Your task to perform on an android device: change the clock display to show seconds Image 0: 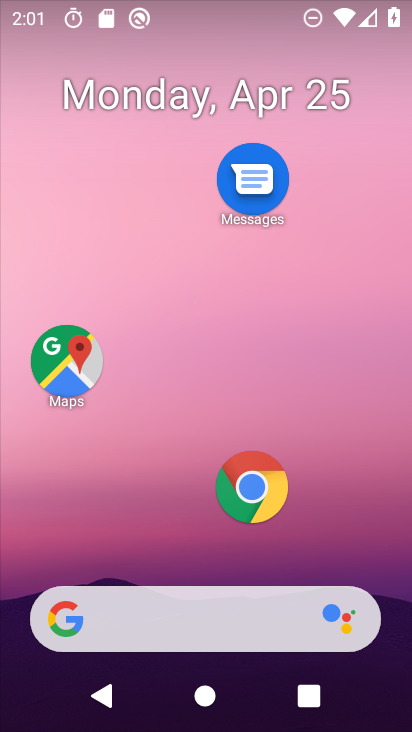
Step 0: drag from (332, 567) to (247, 1)
Your task to perform on an android device: change the clock display to show seconds Image 1: 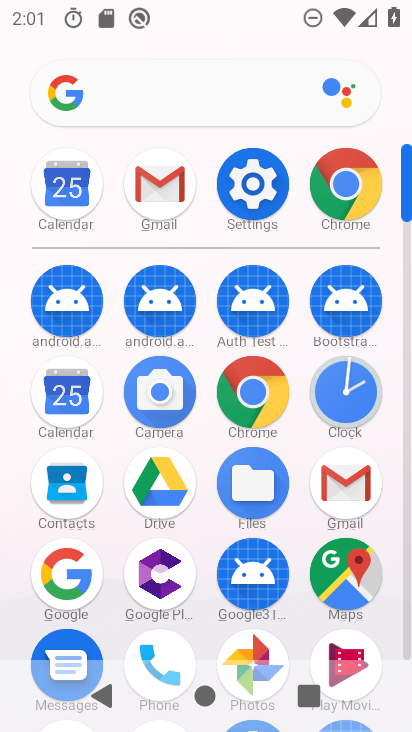
Step 1: click (337, 404)
Your task to perform on an android device: change the clock display to show seconds Image 2: 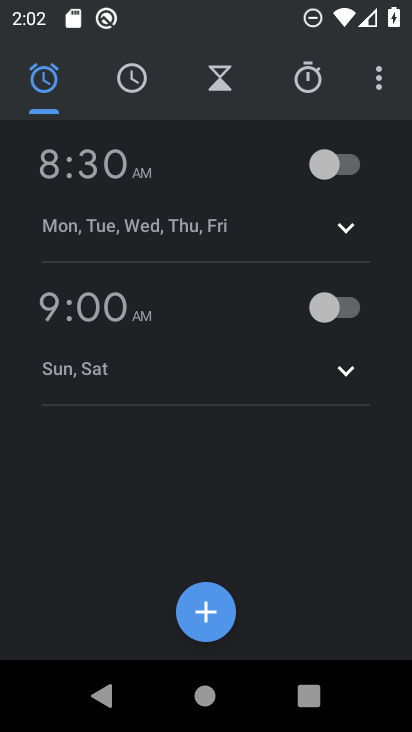
Step 2: click (378, 73)
Your task to perform on an android device: change the clock display to show seconds Image 3: 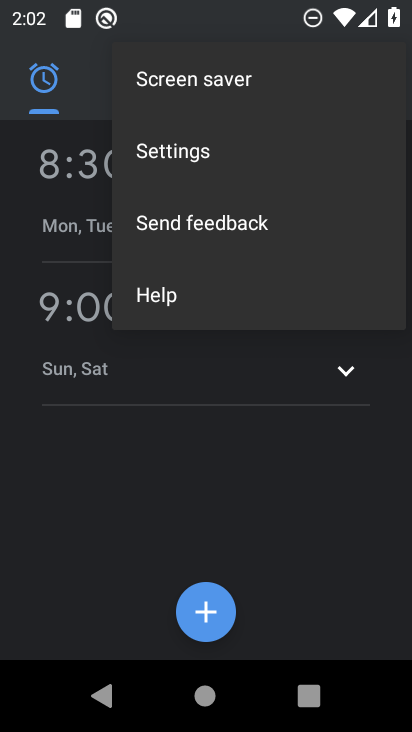
Step 3: click (208, 159)
Your task to perform on an android device: change the clock display to show seconds Image 4: 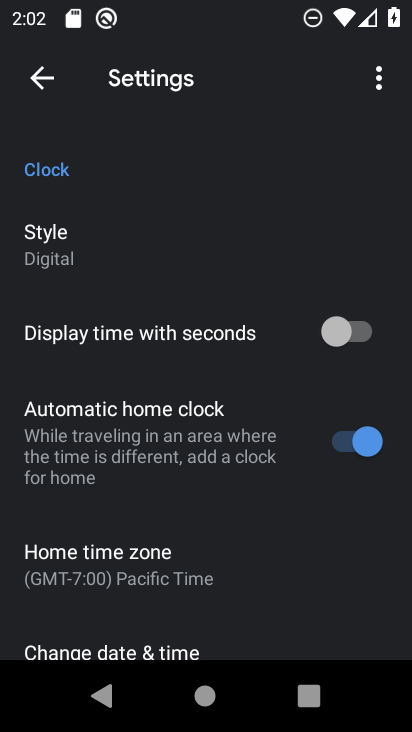
Step 4: click (358, 333)
Your task to perform on an android device: change the clock display to show seconds Image 5: 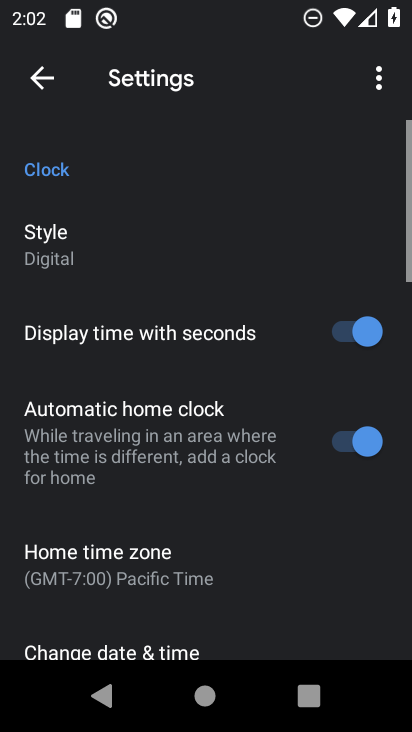
Step 5: task complete